Your task to perform on an android device: Go to ESPN.com Image 0: 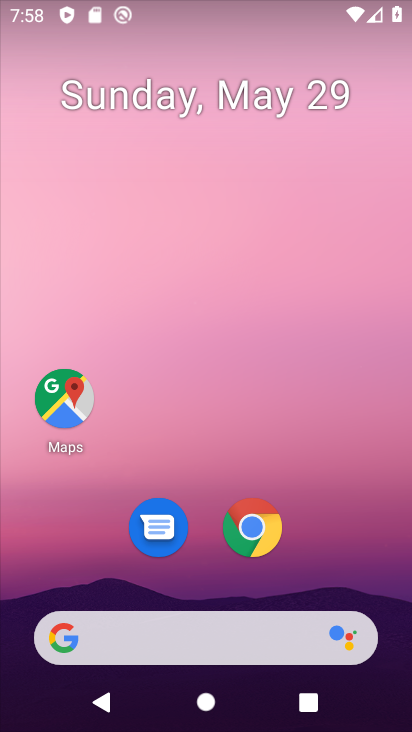
Step 0: press home button
Your task to perform on an android device: Go to ESPN.com Image 1: 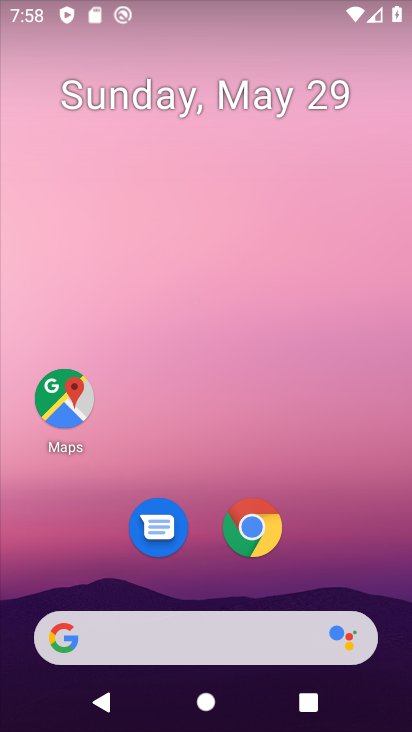
Step 1: click (247, 526)
Your task to perform on an android device: Go to ESPN.com Image 2: 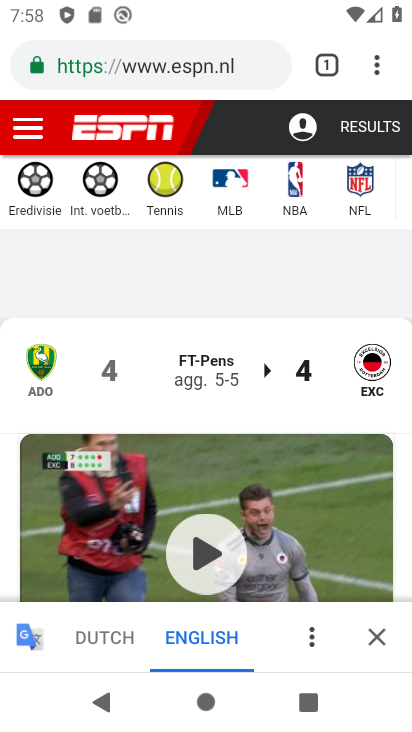
Step 2: task complete